Your task to perform on an android device: Open display settings Image 0: 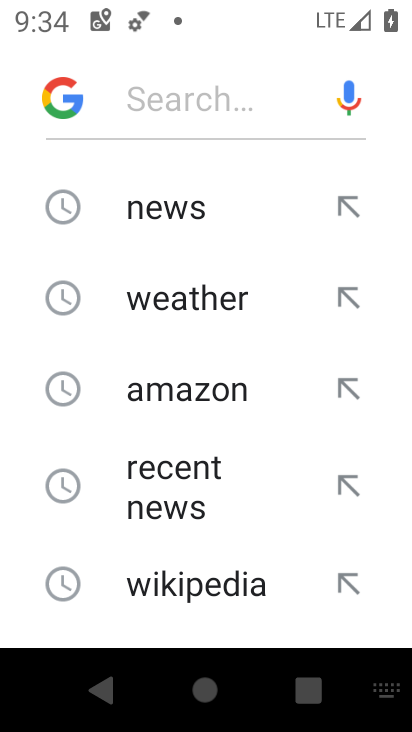
Step 0: press home button
Your task to perform on an android device: Open display settings Image 1: 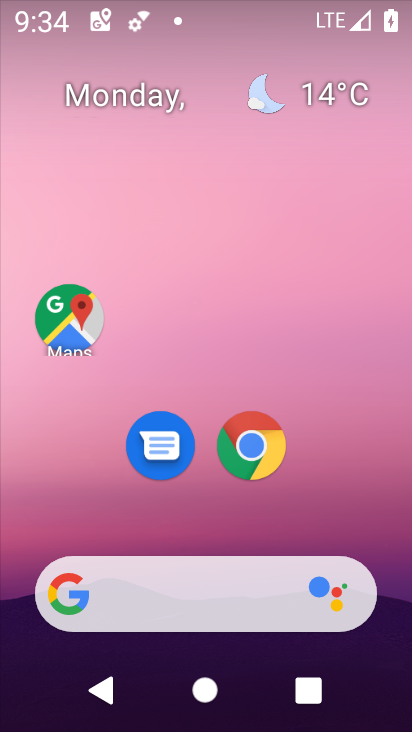
Step 1: drag from (218, 541) to (223, 51)
Your task to perform on an android device: Open display settings Image 2: 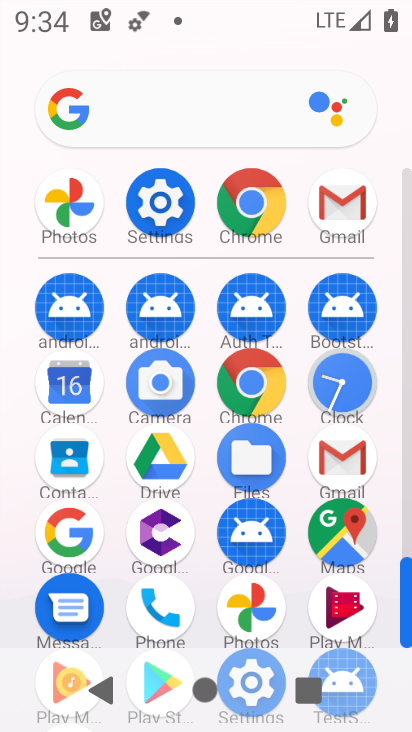
Step 2: click (157, 194)
Your task to perform on an android device: Open display settings Image 3: 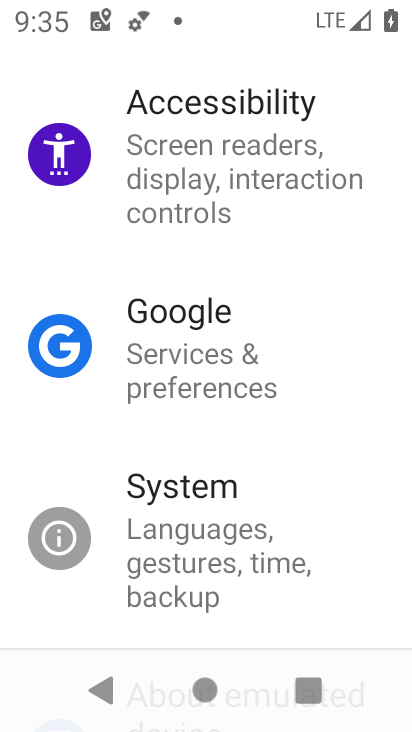
Step 3: drag from (107, 115) to (118, 631)
Your task to perform on an android device: Open display settings Image 4: 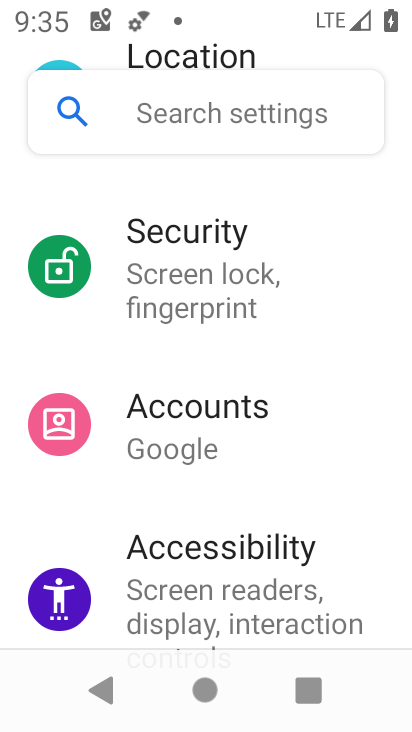
Step 4: drag from (105, 169) to (103, 657)
Your task to perform on an android device: Open display settings Image 5: 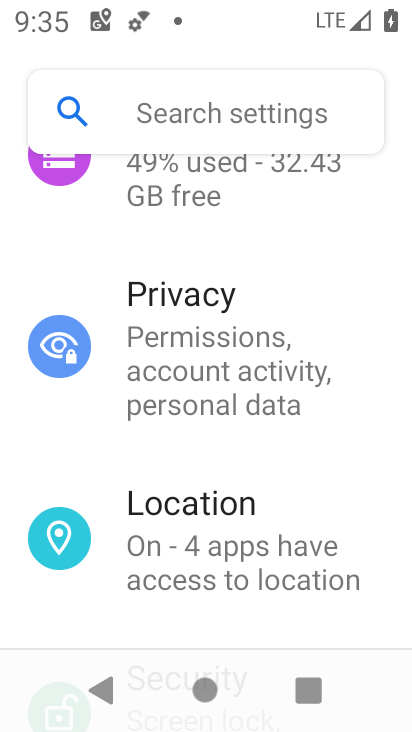
Step 5: drag from (114, 174) to (104, 593)
Your task to perform on an android device: Open display settings Image 6: 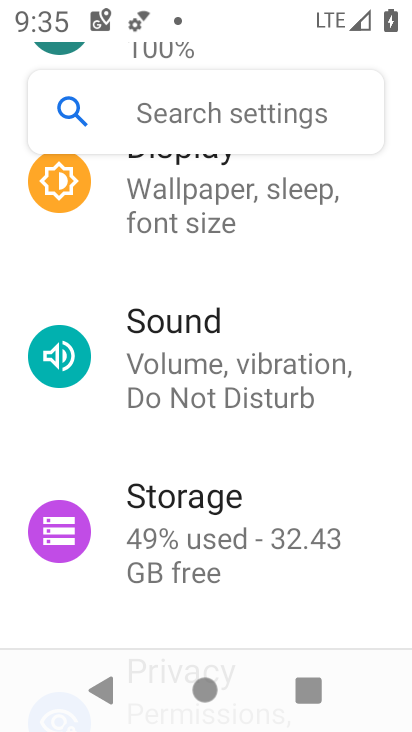
Step 6: drag from (110, 180) to (104, 452)
Your task to perform on an android device: Open display settings Image 7: 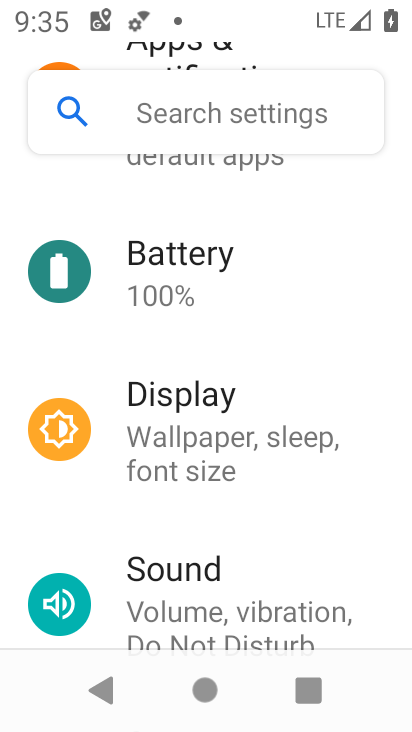
Step 7: click (101, 409)
Your task to perform on an android device: Open display settings Image 8: 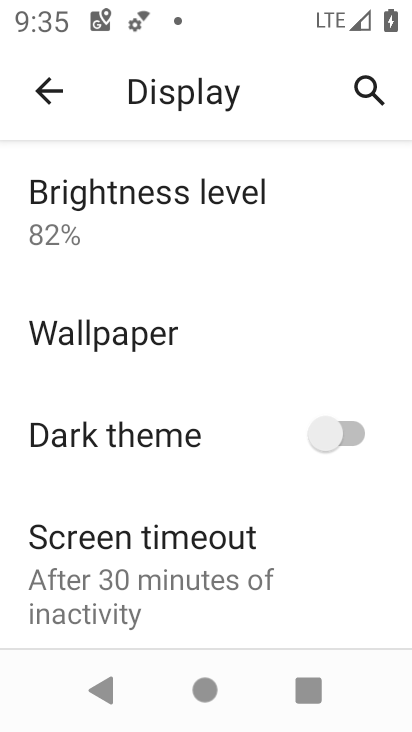
Step 8: drag from (222, 614) to (242, 217)
Your task to perform on an android device: Open display settings Image 9: 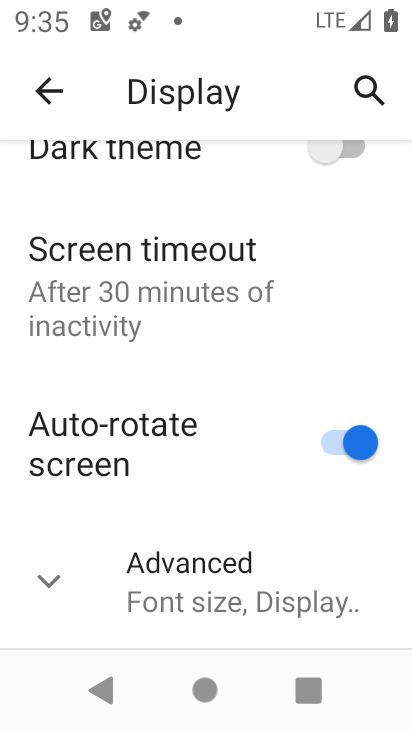
Step 9: click (47, 570)
Your task to perform on an android device: Open display settings Image 10: 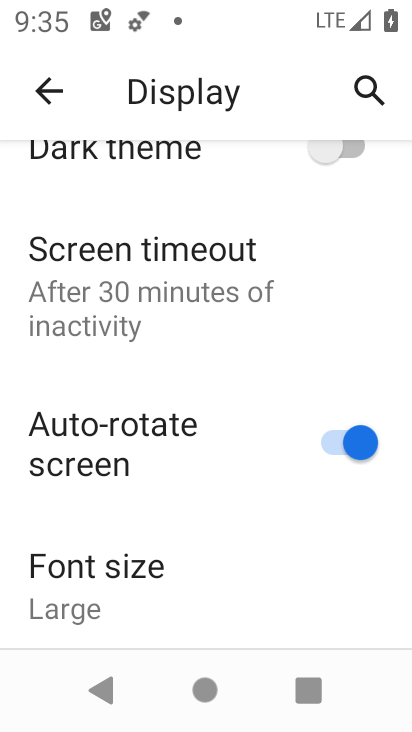
Step 10: task complete